Your task to perform on an android device: Open Maps and search for coffee Image 0: 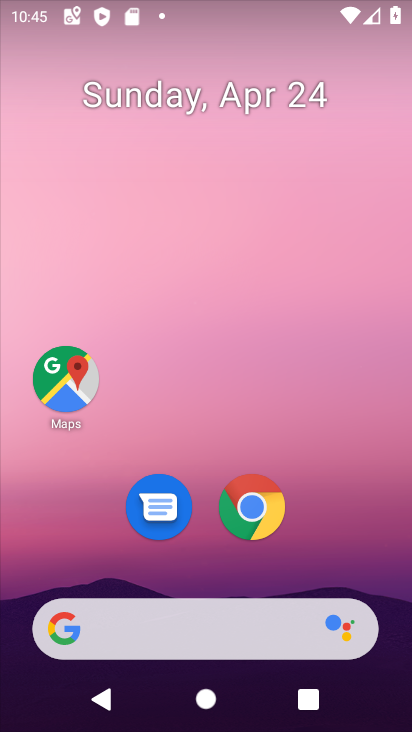
Step 0: click (47, 371)
Your task to perform on an android device: Open Maps and search for coffee Image 1: 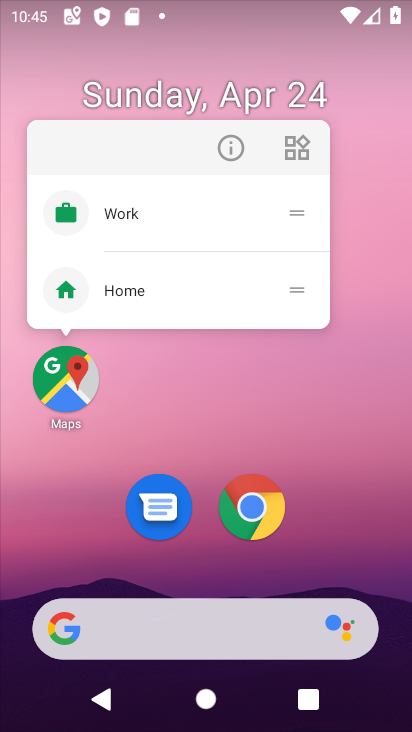
Step 1: click (48, 414)
Your task to perform on an android device: Open Maps and search for coffee Image 2: 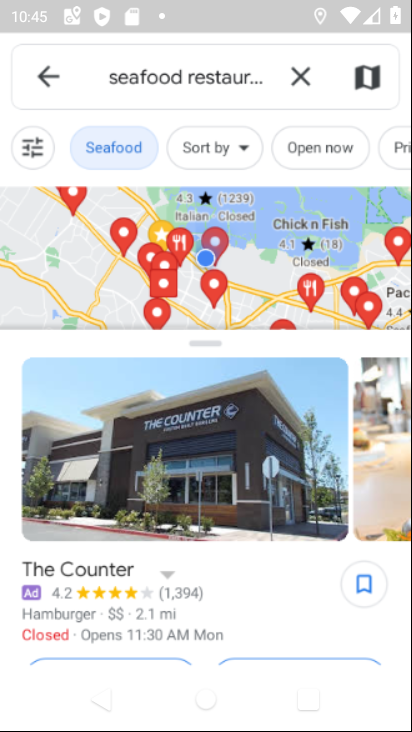
Step 2: click (298, 65)
Your task to perform on an android device: Open Maps and search for coffee Image 3: 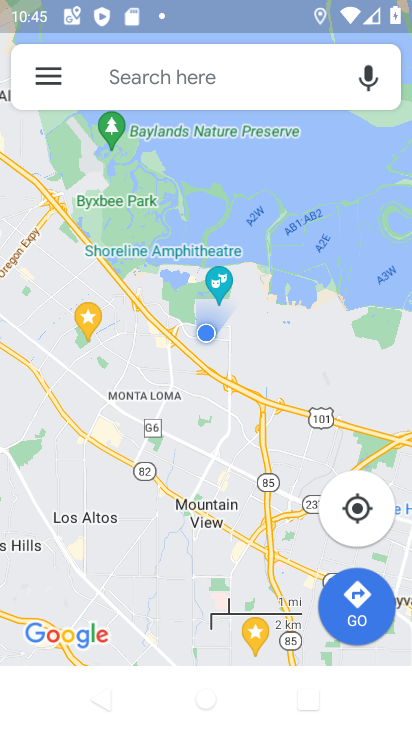
Step 3: click (225, 81)
Your task to perform on an android device: Open Maps and search for coffee Image 4: 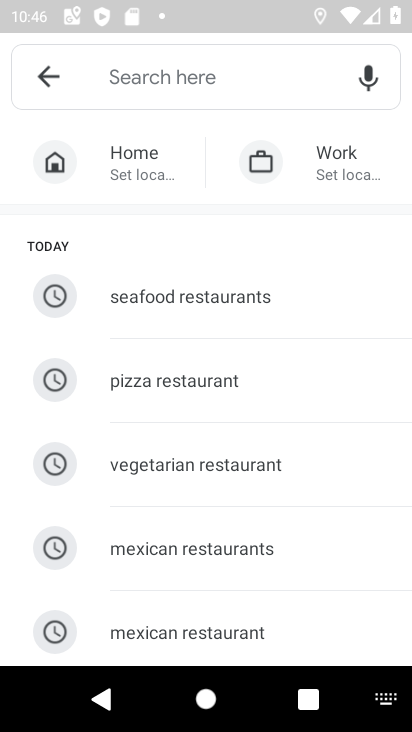
Step 4: type "coffee"
Your task to perform on an android device: Open Maps and search for coffee Image 5: 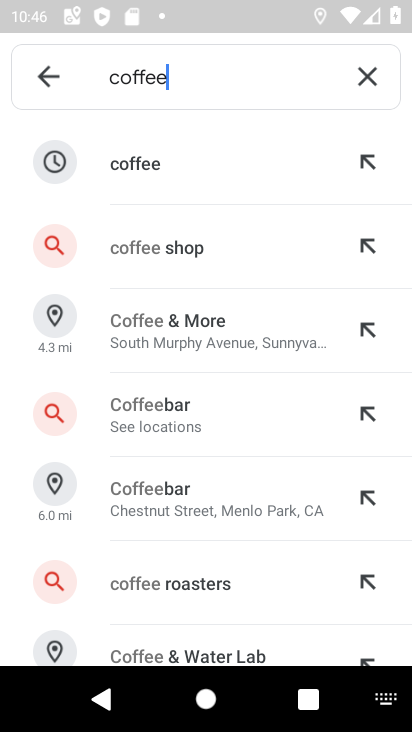
Step 5: click (184, 158)
Your task to perform on an android device: Open Maps and search for coffee Image 6: 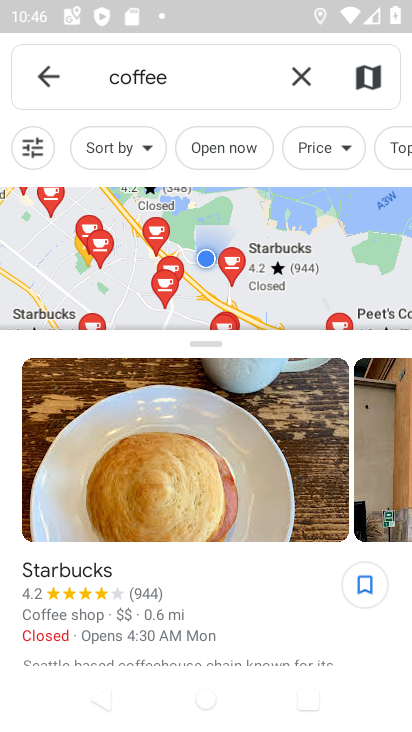
Step 6: task complete